Your task to perform on an android device: What's on my calendar tomorrow? Image 0: 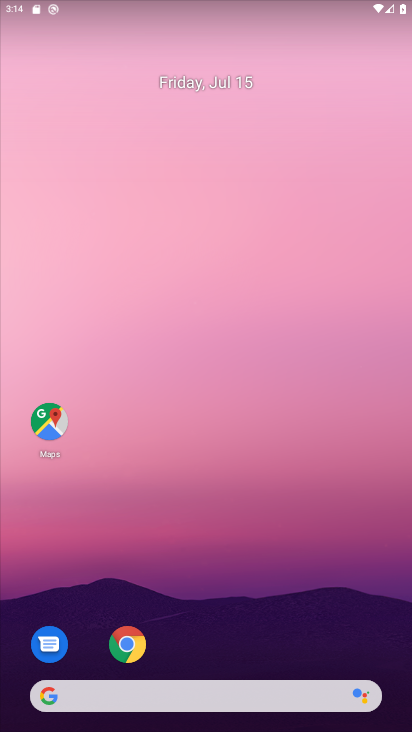
Step 0: click (221, 90)
Your task to perform on an android device: What's on my calendar tomorrow? Image 1: 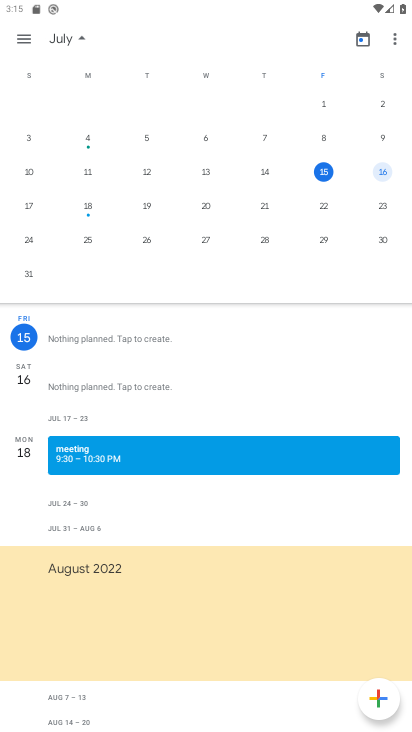
Step 1: click (382, 171)
Your task to perform on an android device: What's on my calendar tomorrow? Image 2: 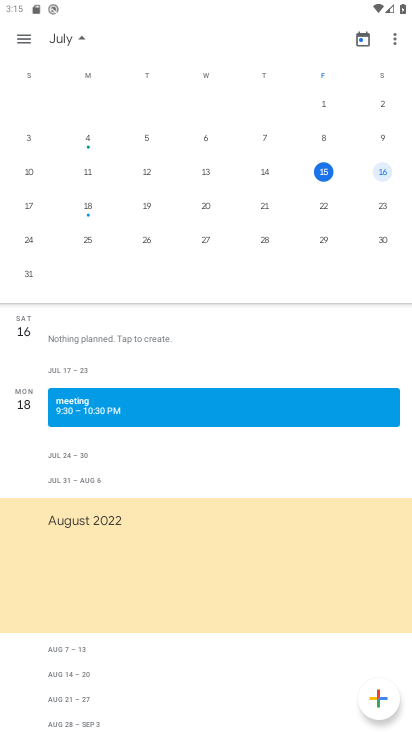
Step 2: task complete